Your task to perform on an android device: Open calendar and show me the first week of next month Image 0: 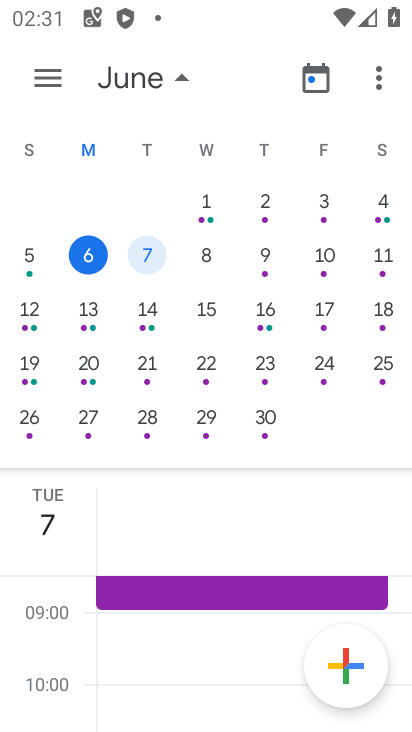
Step 0: press home button
Your task to perform on an android device: Open calendar and show me the first week of next month Image 1: 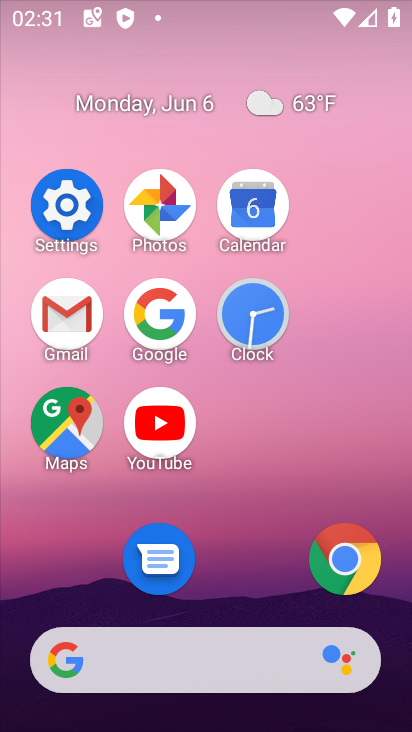
Step 1: click (269, 216)
Your task to perform on an android device: Open calendar and show me the first week of next month Image 2: 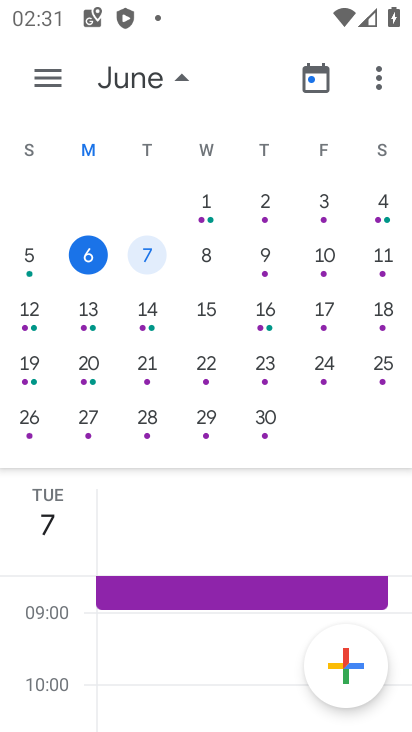
Step 2: click (142, 91)
Your task to perform on an android device: Open calendar and show me the first week of next month Image 3: 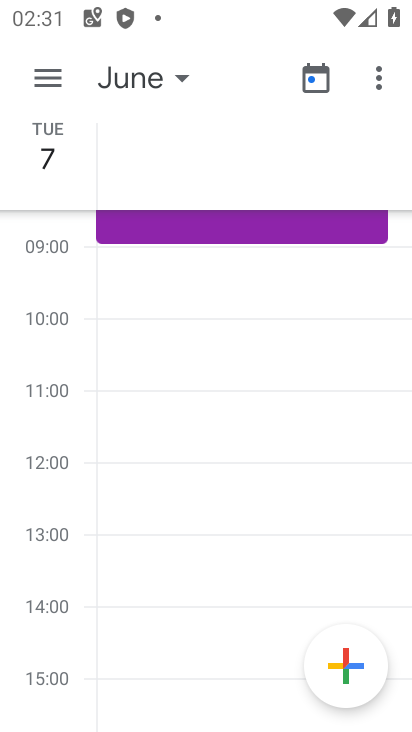
Step 3: click (128, 76)
Your task to perform on an android device: Open calendar and show me the first week of next month Image 4: 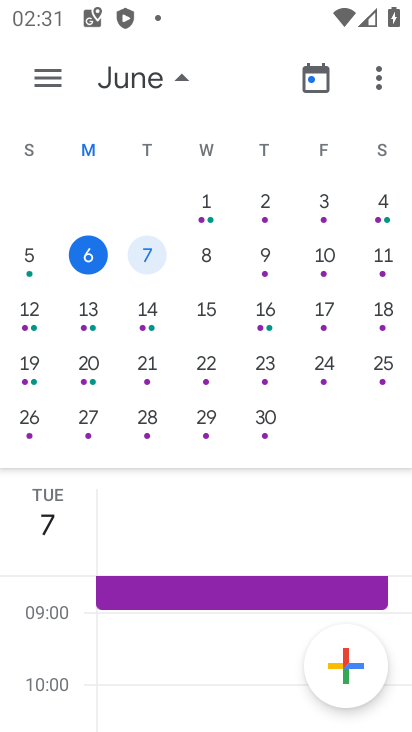
Step 4: drag from (391, 286) to (8, 167)
Your task to perform on an android device: Open calendar and show me the first week of next month Image 5: 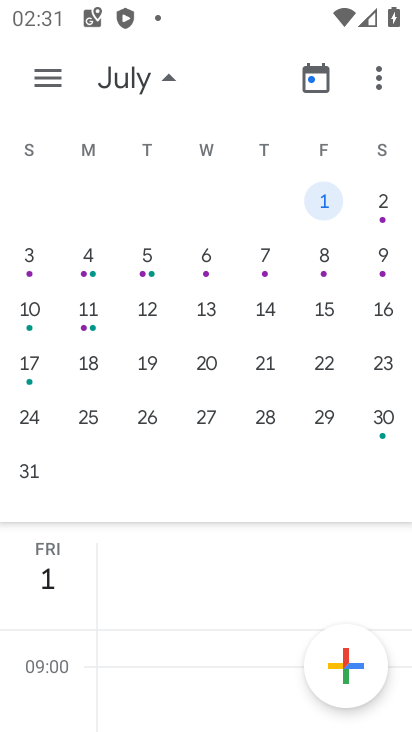
Step 5: click (62, 79)
Your task to perform on an android device: Open calendar and show me the first week of next month Image 6: 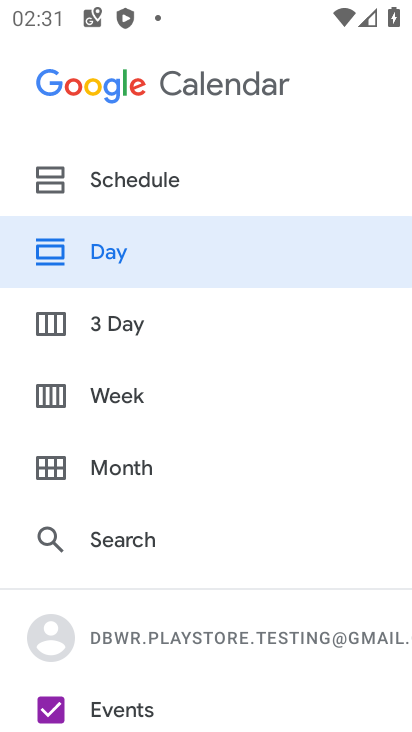
Step 6: click (134, 428)
Your task to perform on an android device: Open calendar and show me the first week of next month Image 7: 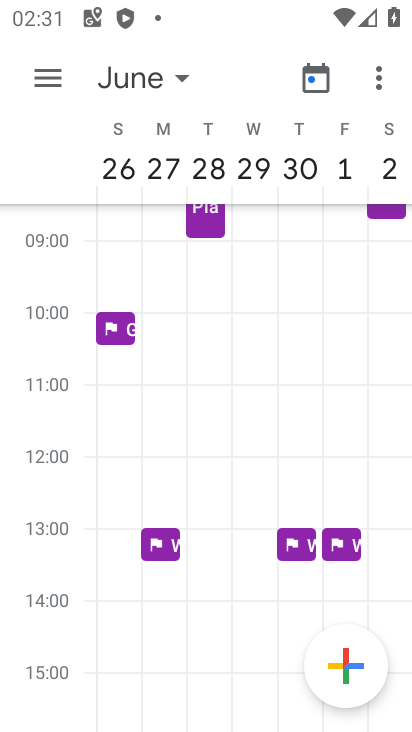
Step 7: task complete